Your task to perform on an android device: turn off translation in the chrome app Image 0: 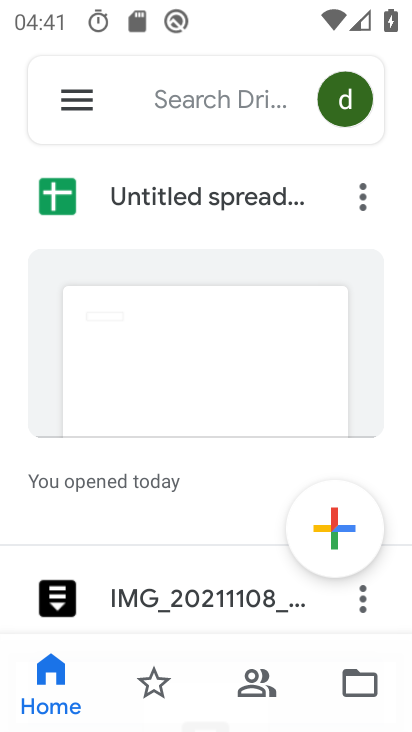
Step 0: press back button
Your task to perform on an android device: turn off translation in the chrome app Image 1: 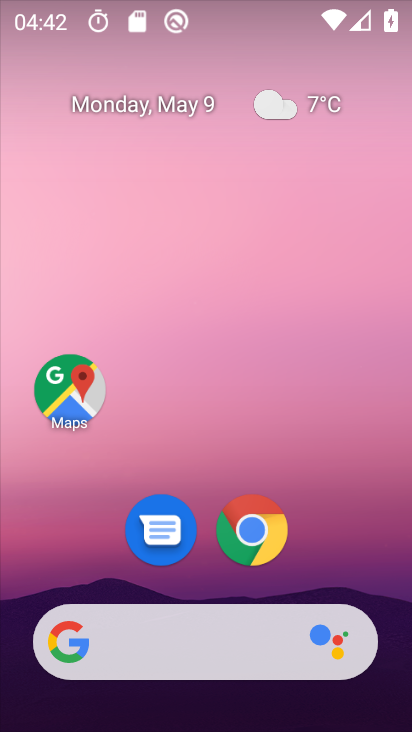
Step 1: click (252, 529)
Your task to perform on an android device: turn off translation in the chrome app Image 2: 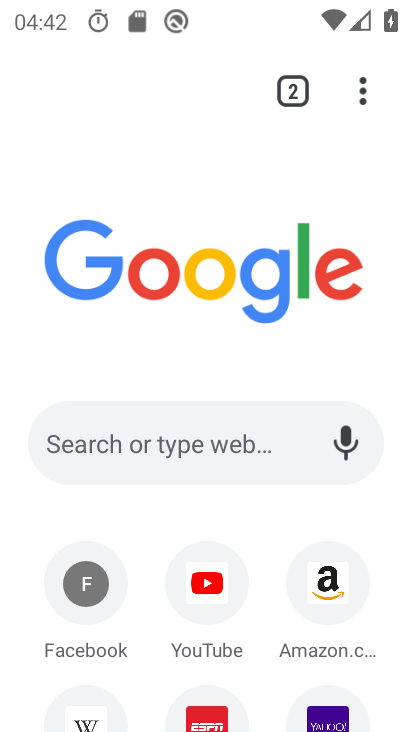
Step 2: drag from (358, 88) to (145, 551)
Your task to perform on an android device: turn off translation in the chrome app Image 3: 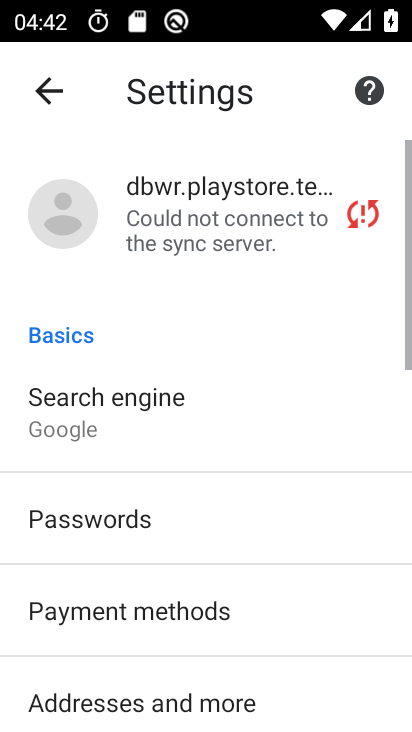
Step 3: drag from (143, 616) to (260, 227)
Your task to perform on an android device: turn off translation in the chrome app Image 4: 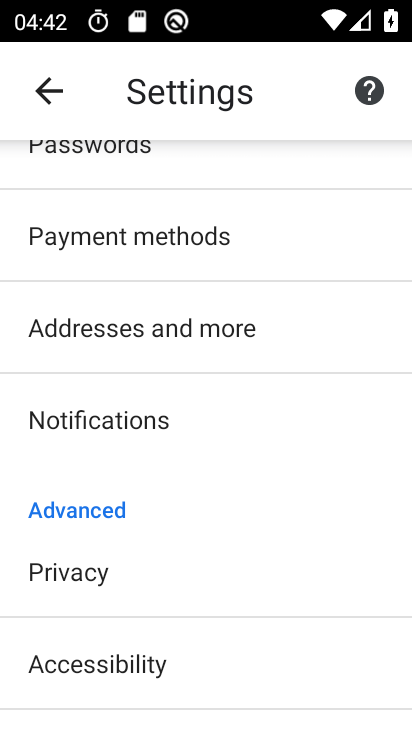
Step 4: drag from (156, 638) to (283, 173)
Your task to perform on an android device: turn off translation in the chrome app Image 5: 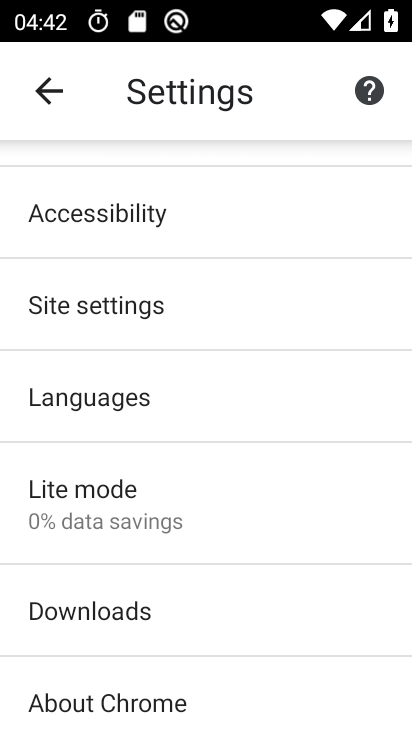
Step 5: click (141, 401)
Your task to perform on an android device: turn off translation in the chrome app Image 6: 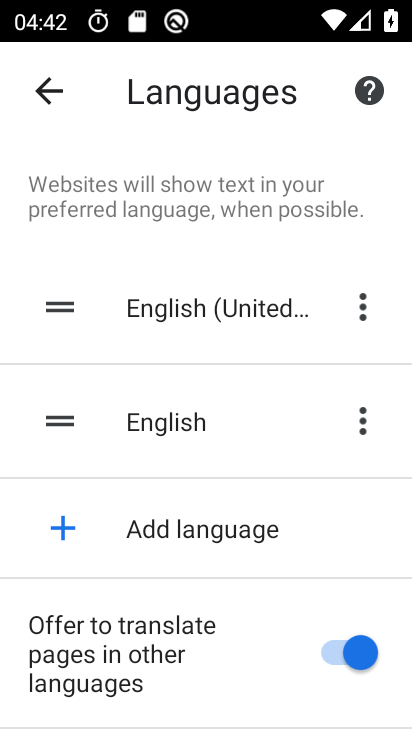
Step 6: click (352, 656)
Your task to perform on an android device: turn off translation in the chrome app Image 7: 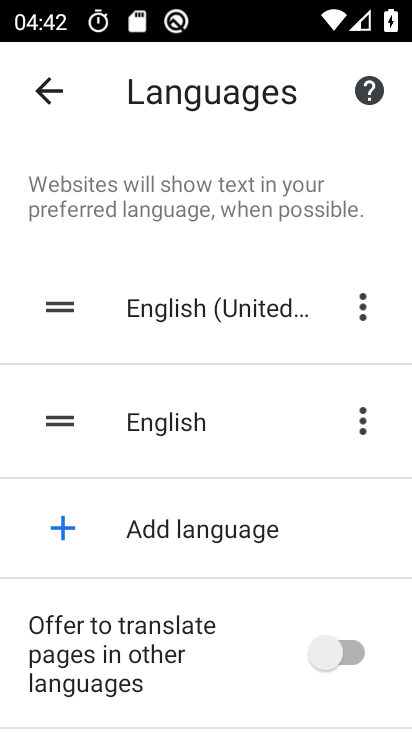
Step 7: task complete